Your task to perform on an android device: Open settings Image 0: 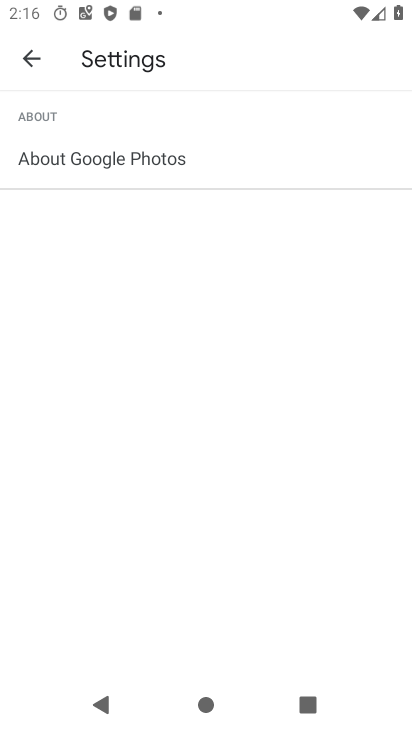
Step 0: press home button
Your task to perform on an android device: Open settings Image 1: 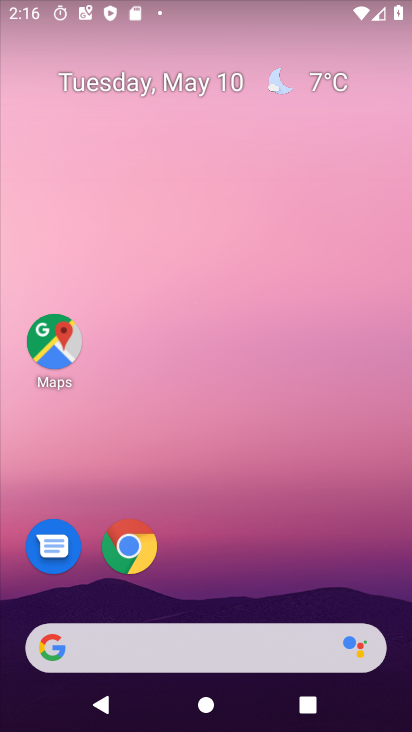
Step 1: drag from (318, 486) to (282, 116)
Your task to perform on an android device: Open settings Image 2: 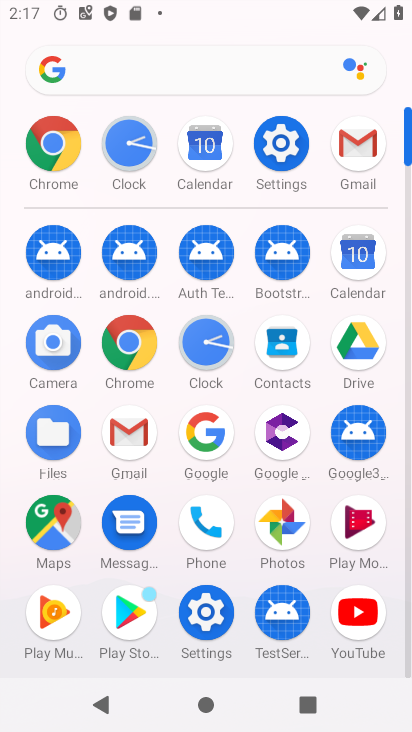
Step 2: click (261, 158)
Your task to perform on an android device: Open settings Image 3: 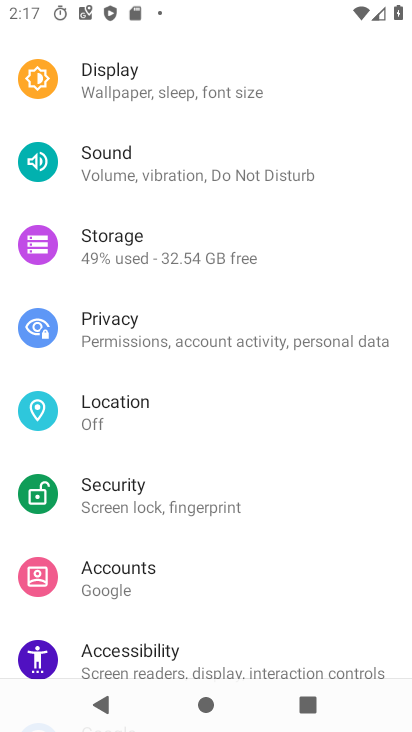
Step 3: task complete